Your task to perform on an android device: Search for Mexican restaurants on Maps Image 0: 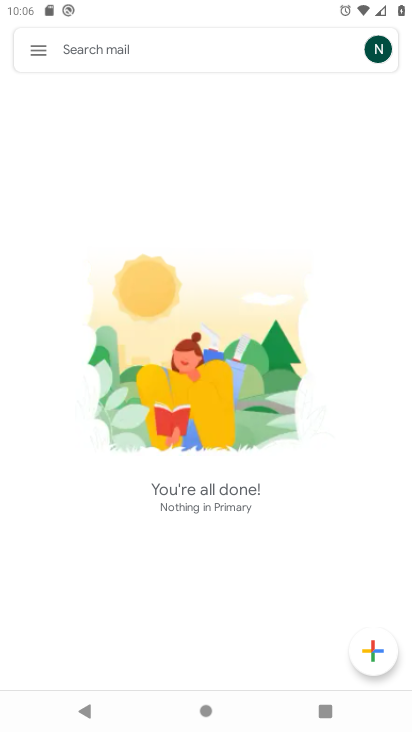
Step 0: press back button
Your task to perform on an android device: Search for Mexican restaurants on Maps Image 1: 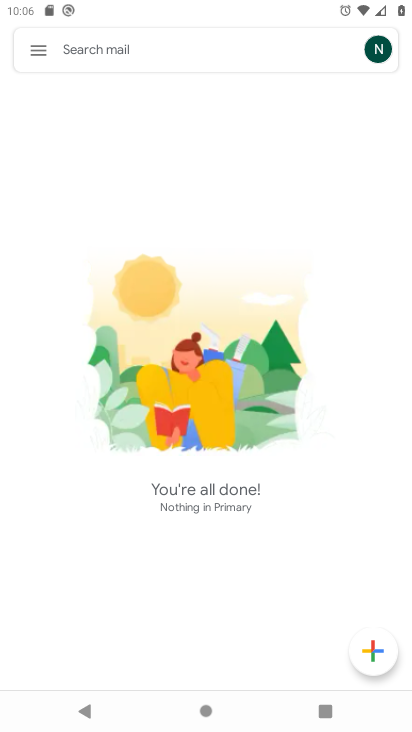
Step 1: press back button
Your task to perform on an android device: Search for Mexican restaurants on Maps Image 2: 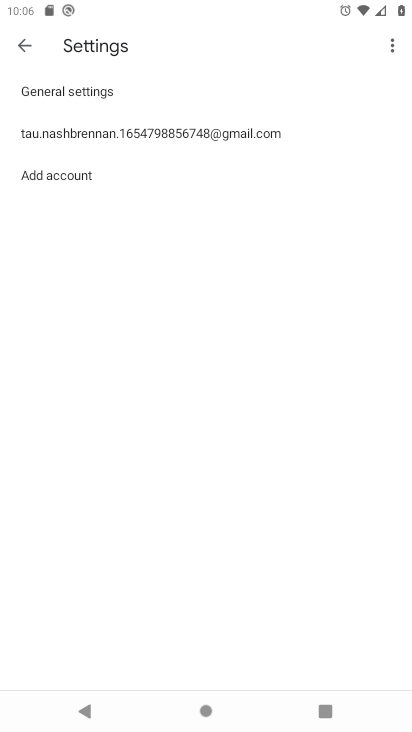
Step 2: press home button
Your task to perform on an android device: Search for Mexican restaurants on Maps Image 3: 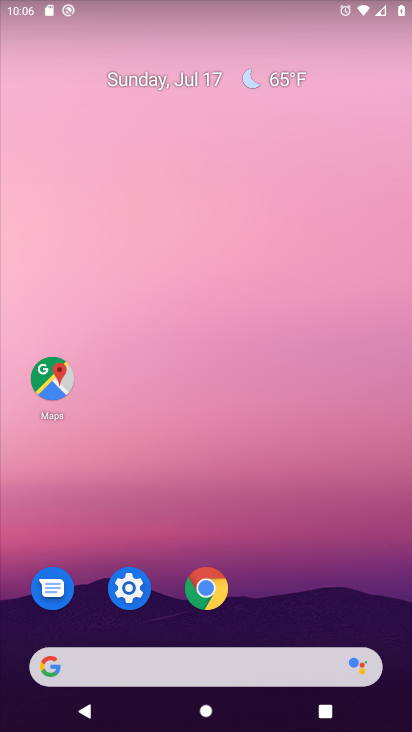
Step 3: drag from (240, 436) to (214, 178)
Your task to perform on an android device: Search for Mexican restaurants on Maps Image 4: 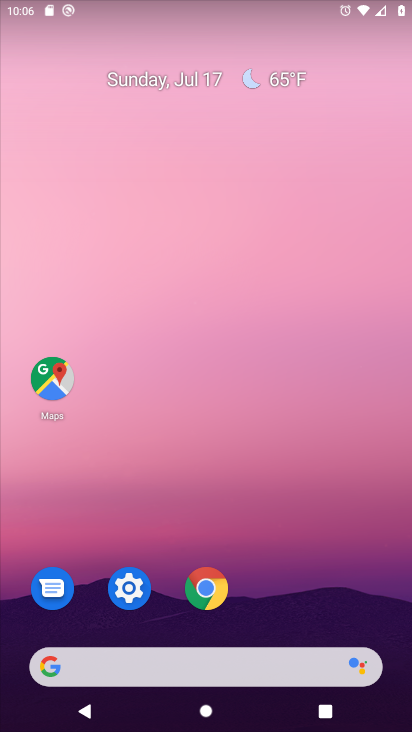
Step 4: drag from (240, 652) to (208, 219)
Your task to perform on an android device: Search for Mexican restaurants on Maps Image 5: 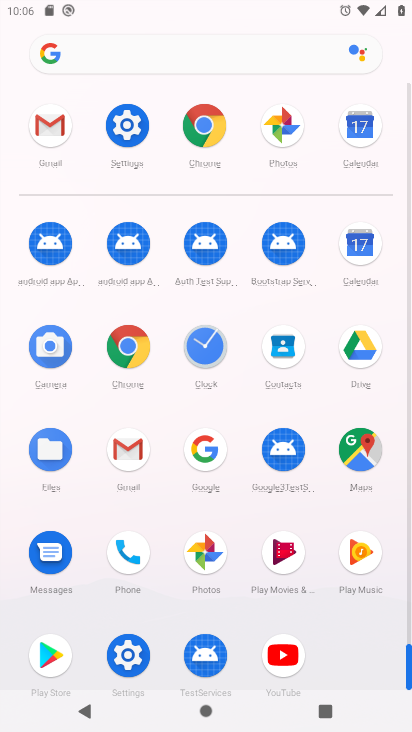
Step 5: click (360, 441)
Your task to perform on an android device: Search for Mexican restaurants on Maps Image 6: 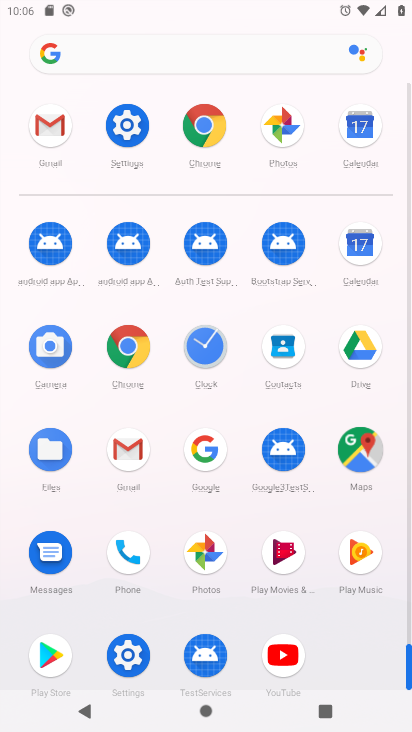
Step 6: click (360, 441)
Your task to perform on an android device: Search for Mexican restaurants on Maps Image 7: 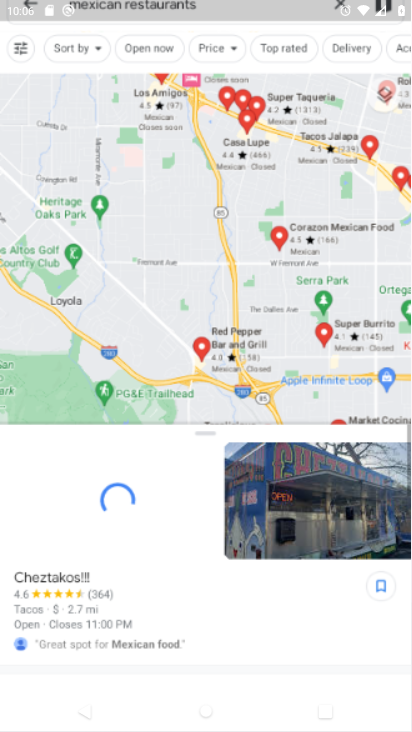
Step 7: click (358, 442)
Your task to perform on an android device: Search for Mexican restaurants on Maps Image 8: 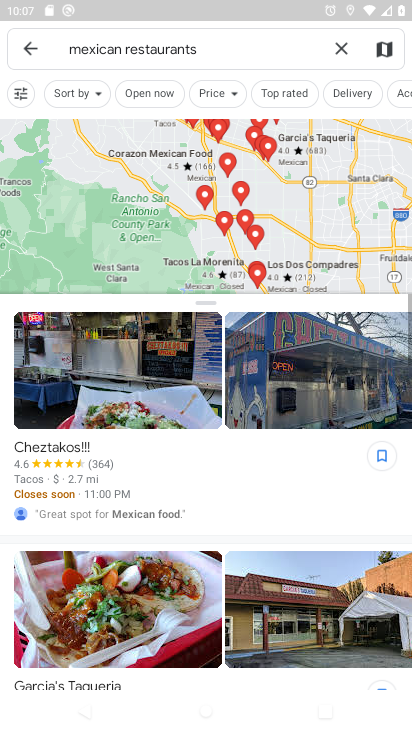
Step 8: click (210, 54)
Your task to perform on an android device: Search for Mexican restaurants on Maps Image 9: 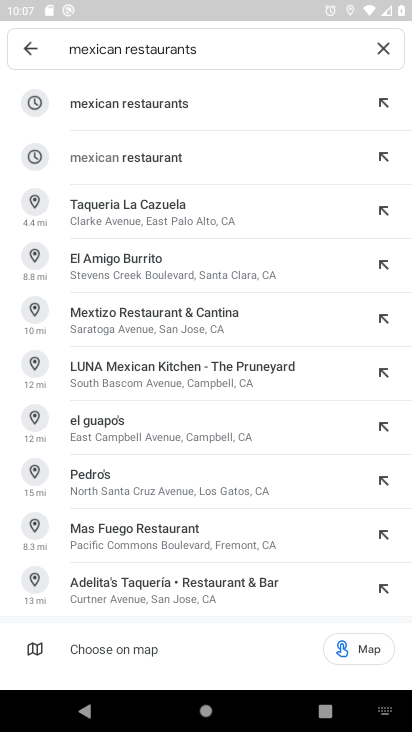
Step 9: click (384, 49)
Your task to perform on an android device: Search for Mexican restaurants on Maps Image 10: 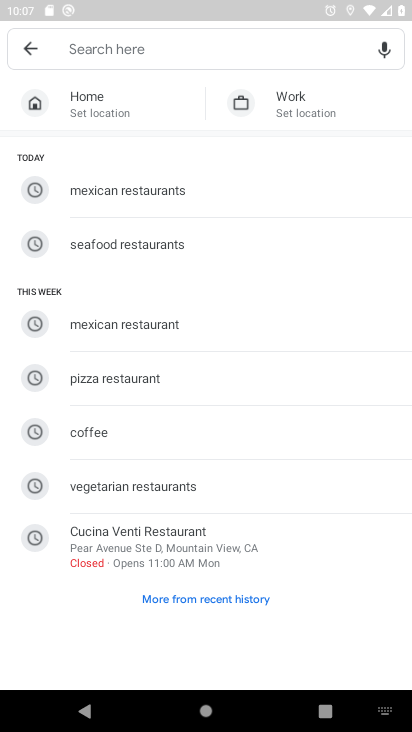
Step 10: click (116, 196)
Your task to perform on an android device: Search for Mexican restaurants on Maps Image 11: 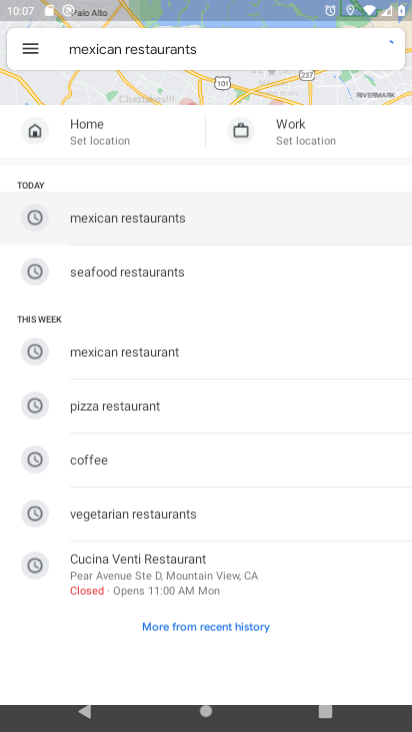
Step 11: click (116, 195)
Your task to perform on an android device: Search for Mexican restaurants on Maps Image 12: 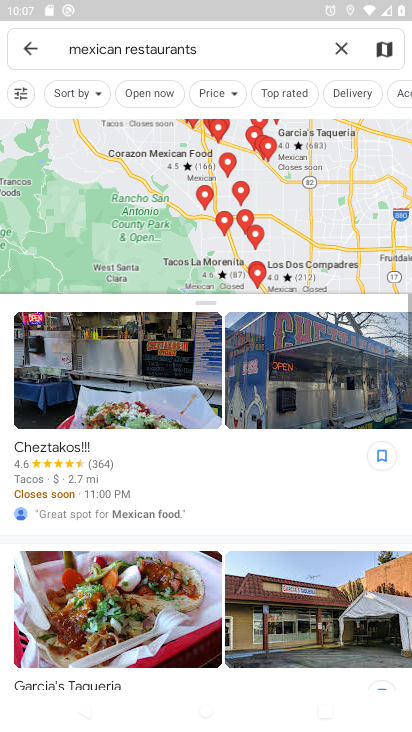
Step 12: task complete